Your task to perform on an android device: Open accessibility settings Image 0: 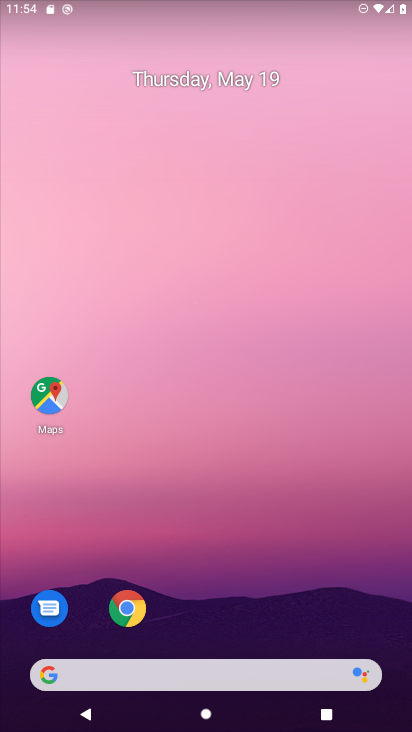
Step 0: press home button
Your task to perform on an android device: Open accessibility settings Image 1: 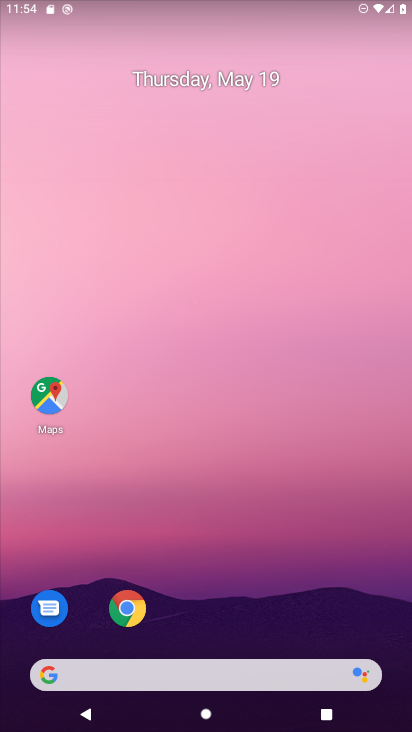
Step 1: drag from (170, 603) to (207, 0)
Your task to perform on an android device: Open accessibility settings Image 2: 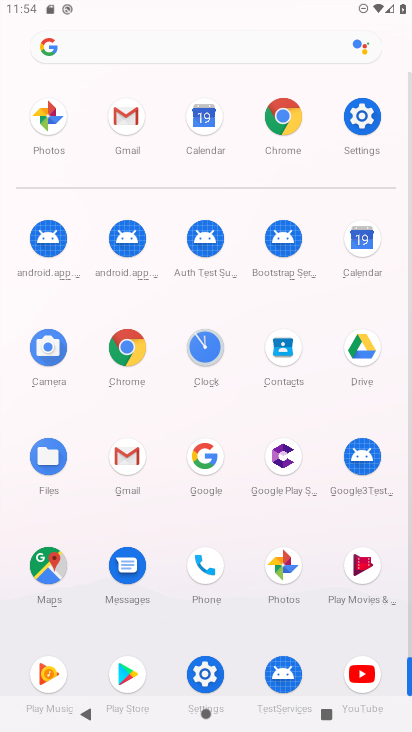
Step 2: click (357, 120)
Your task to perform on an android device: Open accessibility settings Image 3: 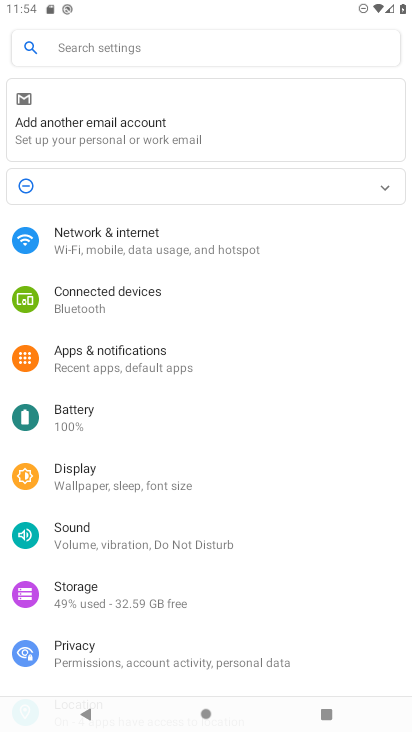
Step 3: drag from (204, 585) to (191, 83)
Your task to perform on an android device: Open accessibility settings Image 4: 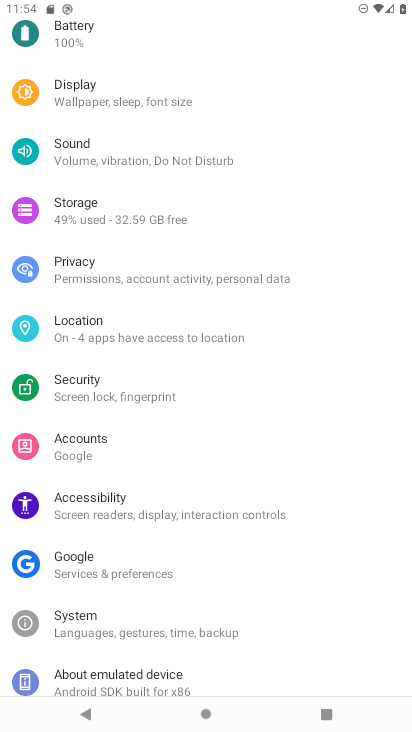
Step 4: click (125, 501)
Your task to perform on an android device: Open accessibility settings Image 5: 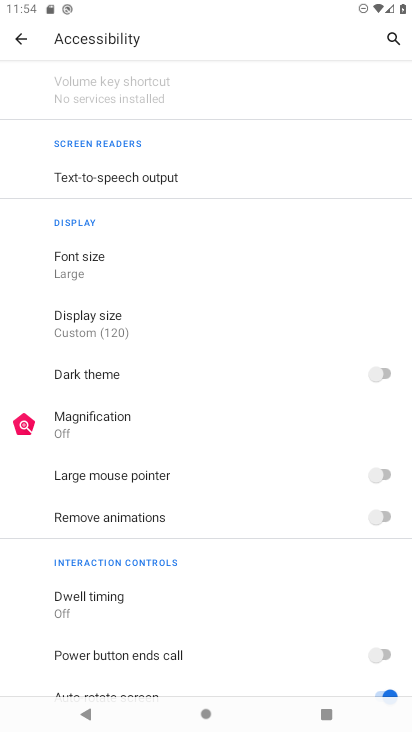
Step 5: task complete